Your task to perform on an android device: open wifi settings Image 0: 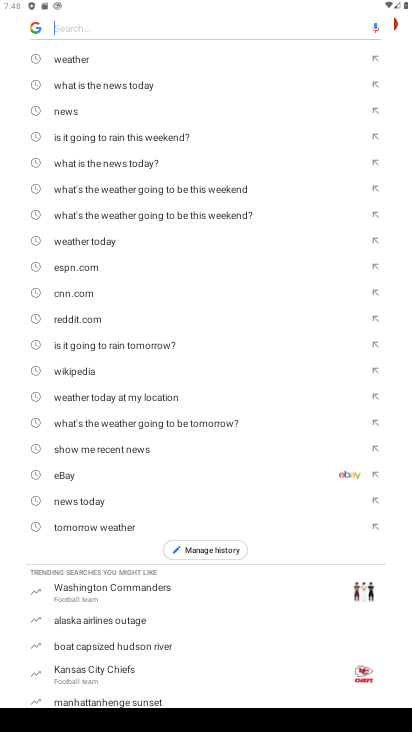
Step 0: press home button
Your task to perform on an android device: open wifi settings Image 1: 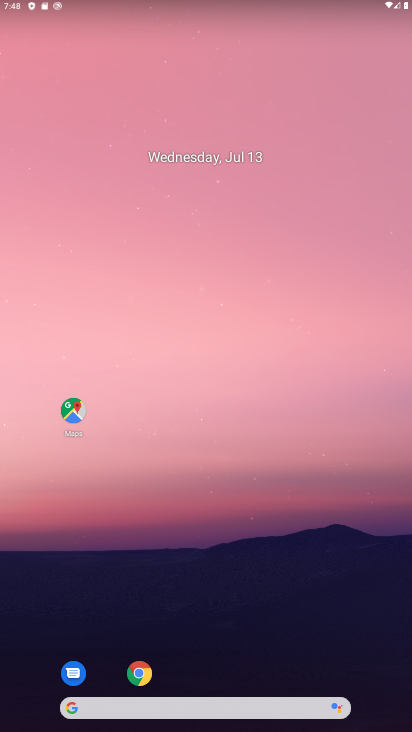
Step 1: drag from (233, 609) to (235, 92)
Your task to perform on an android device: open wifi settings Image 2: 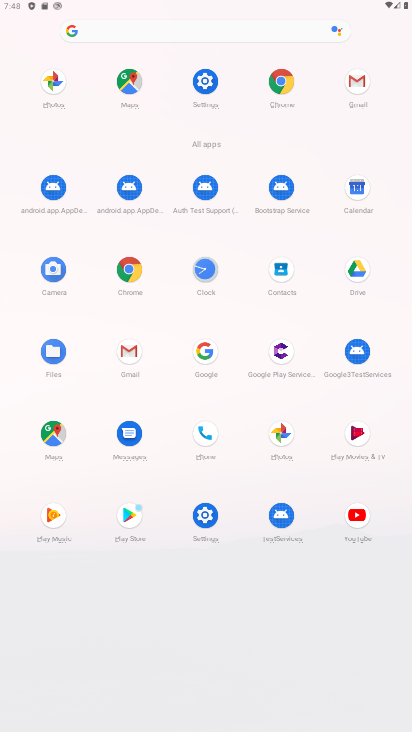
Step 2: click (206, 83)
Your task to perform on an android device: open wifi settings Image 3: 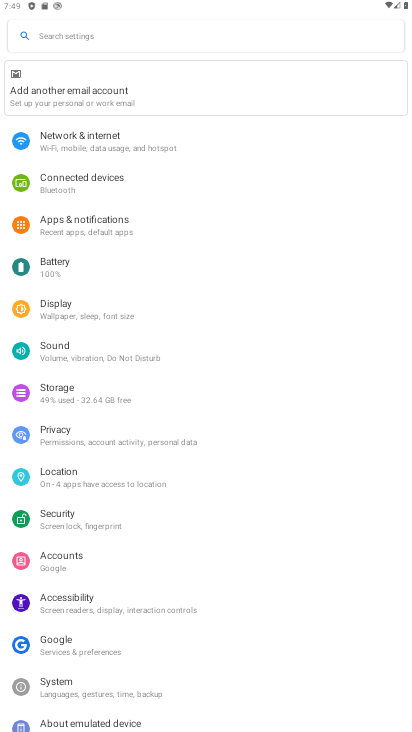
Step 3: click (92, 144)
Your task to perform on an android device: open wifi settings Image 4: 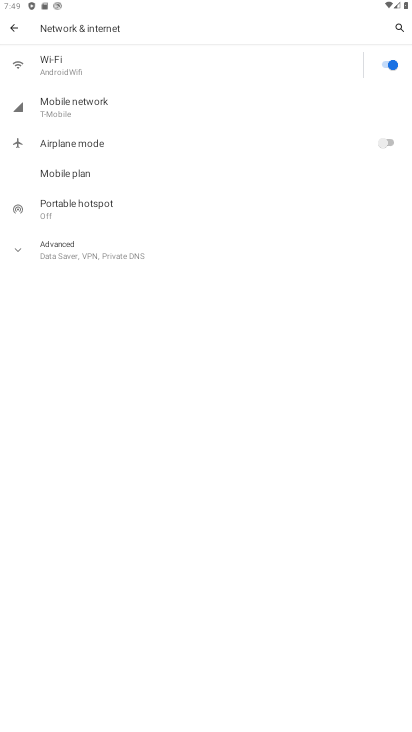
Step 4: click (83, 63)
Your task to perform on an android device: open wifi settings Image 5: 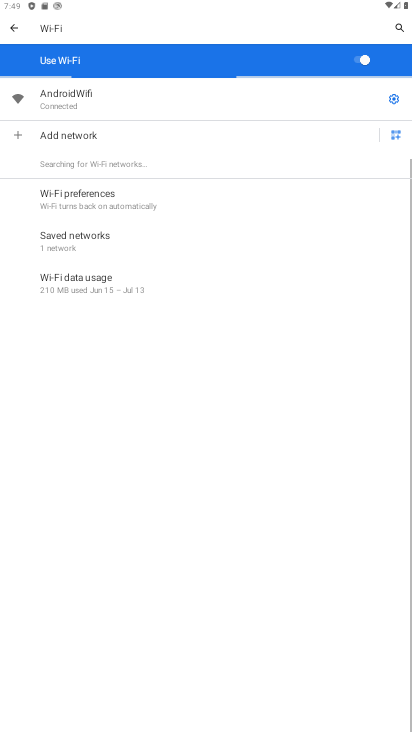
Step 5: click (392, 100)
Your task to perform on an android device: open wifi settings Image 6: 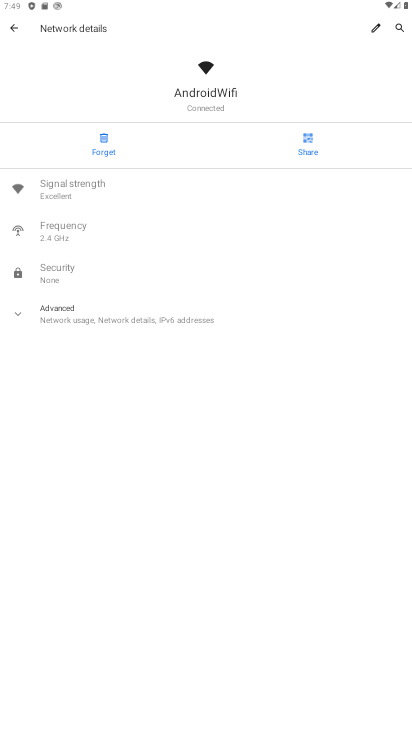
Step 6: task complete